Your task to perform on an android device: turn pop-ups off in chrome Image 0: 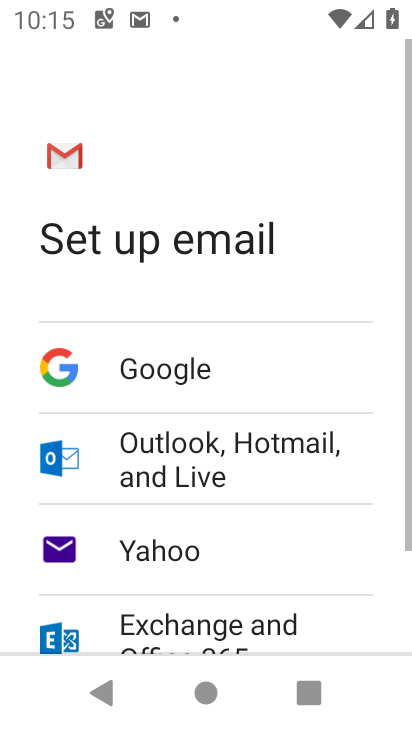
Step 0: press home button
Your task to perform on an android device: turn pop-ups off in chrome Image 1: 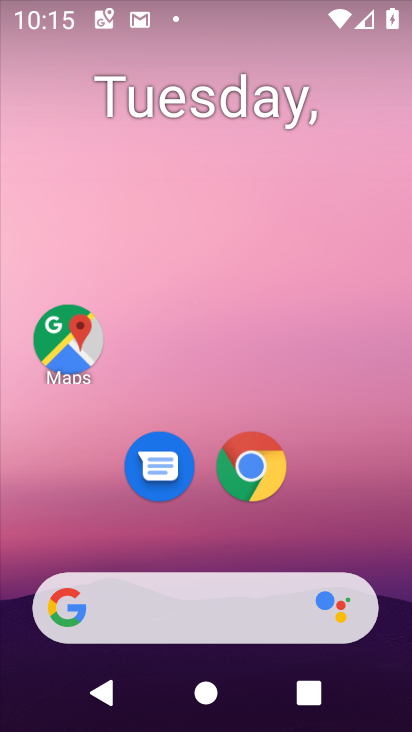
Step 1: drag from (261, 639) to (287, 109)
Your task to perform on an android device: turn pop-ups off in chrome Image 2: 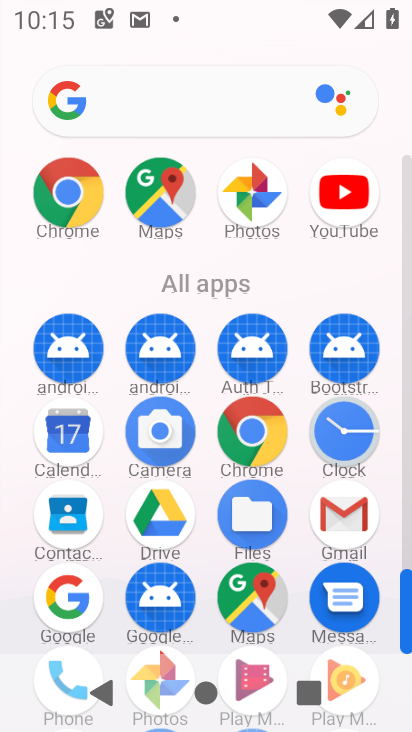
Step 2: click (98, 211)
Your task to perform on an android device: turn pop-ups off in chrome Image 3: 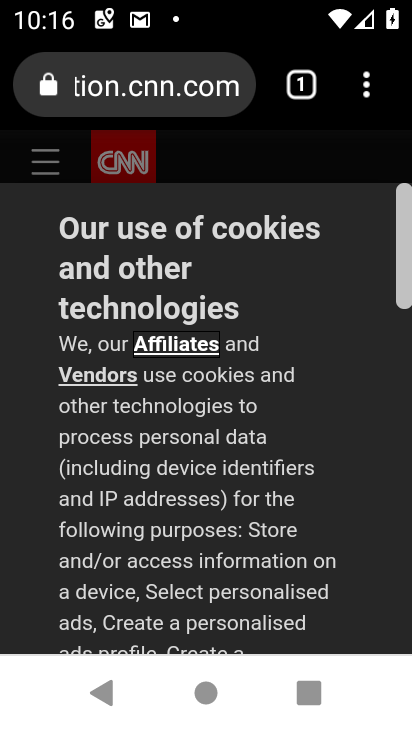
Step 3: click (356, 104)
Your task to perform on an android device: turn pop-ups off in chrome Image 4: 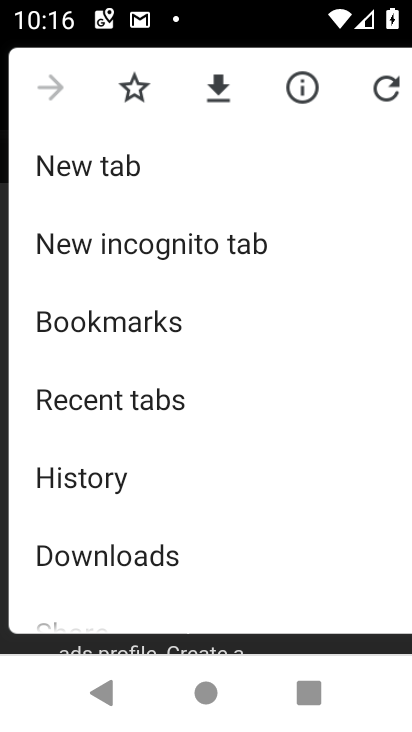
Step 4: drag from (146, 516) to (125, 239)
Your task to perform on an android device: turn pop-ups off in chrome Image 5: 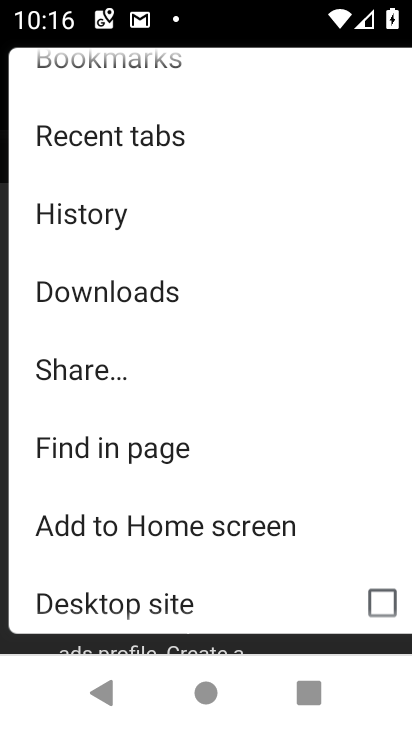
Step 5: drag from (139, 471) to (153, 205)
Your task to perform on an android device: turn pop-ups off in chrome Image 6: 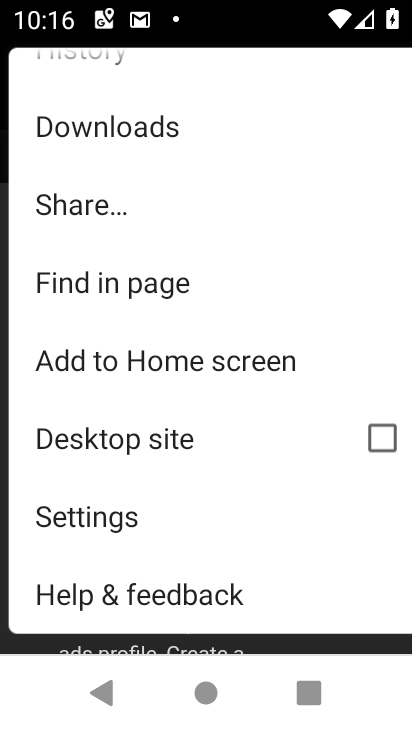
Step 6: click (110, 520)
Your task to perform on an android device: turn pop-ups off in chrome Image 7: 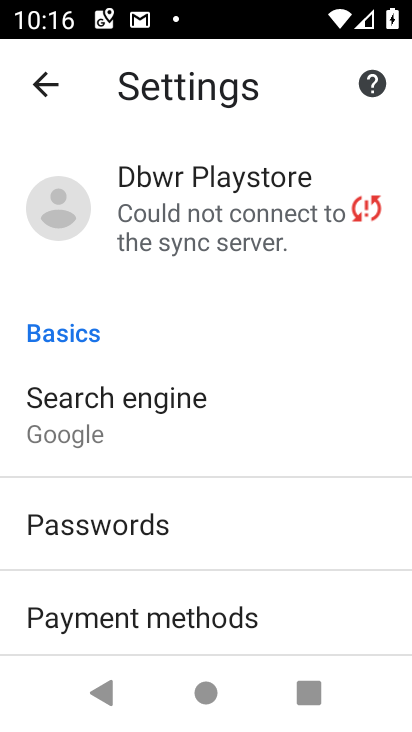
Step 7: drag from (136, 526) to (115, 301)
Your task to perform on an android device: turn pop-ups off in chrome Image 8: 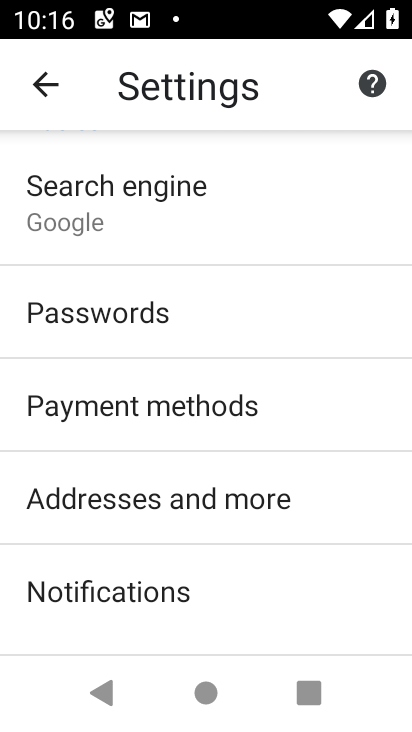
Step 8: drag from (193, 530) to (202, 143)
Your task to perform on an android device: turn pop-ups off in chrome Image 9: 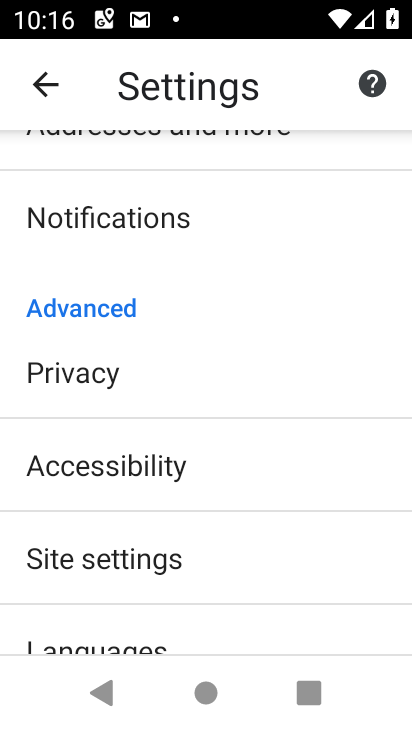
Step 9: drag from (172, 529) to (150, 349)
Your task to perform on an android device: turn pop-ups off in chrome Image 10: 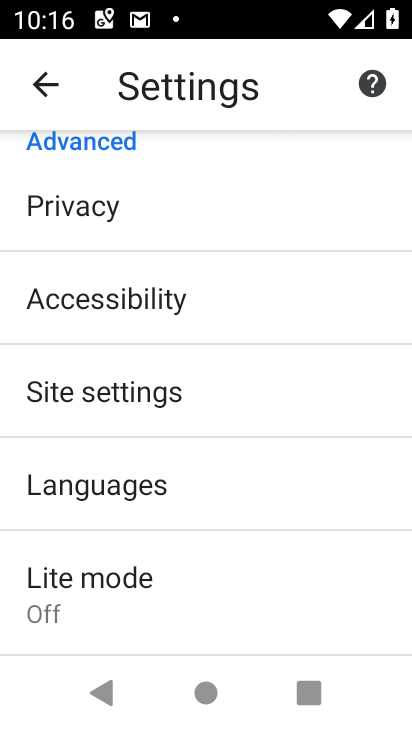
Step 10: click (116, 381)
Your task to perform on an android device: turn pop-ups off in chrome Image 11: 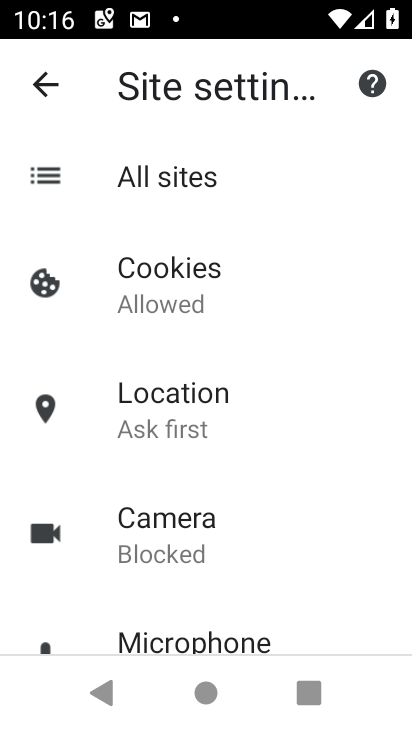
Step 11: drag from (219, 549) to (244, 350)
Your task to perform on an android device: turn pop-ups off in chrome Image 12: 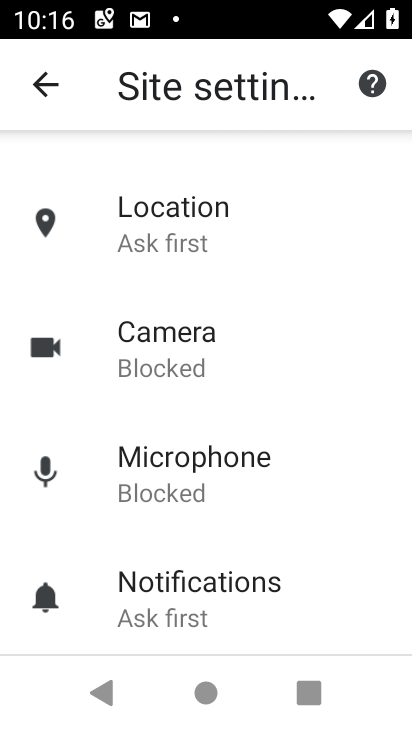
Step 12: drag from (241, 586) to (240, 296)
Your task to perform on an android device: turn pop-ups off in chrome Image 13: 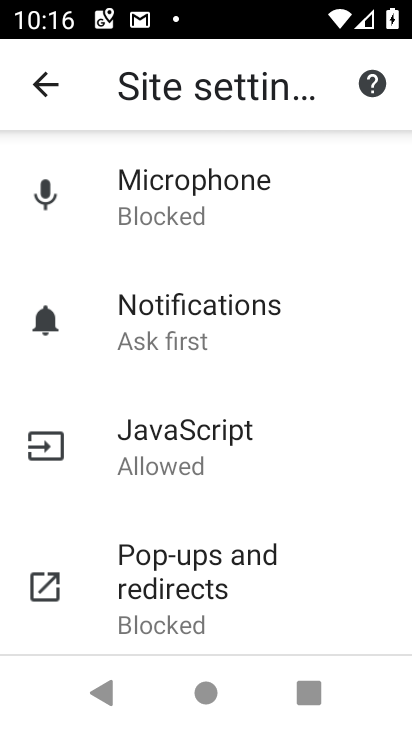
Step 13: click (229, 577)
Your task to perform on an android device: turn pop-ups off in chrome Image 14: 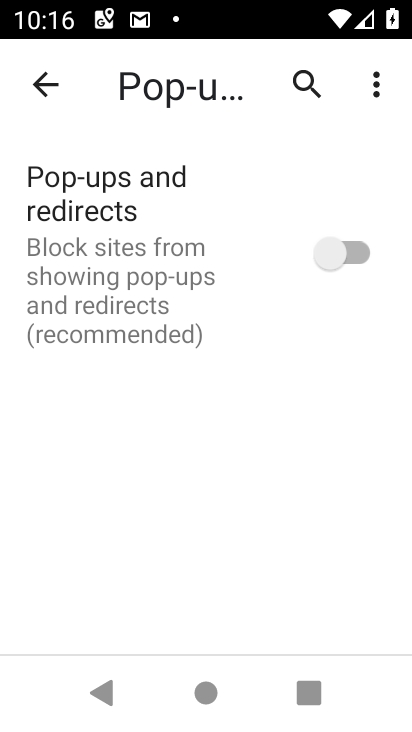
Step 14: click (344, 256)
Your task to perform on an android device: turn pop-ups off in chrome Image 15: 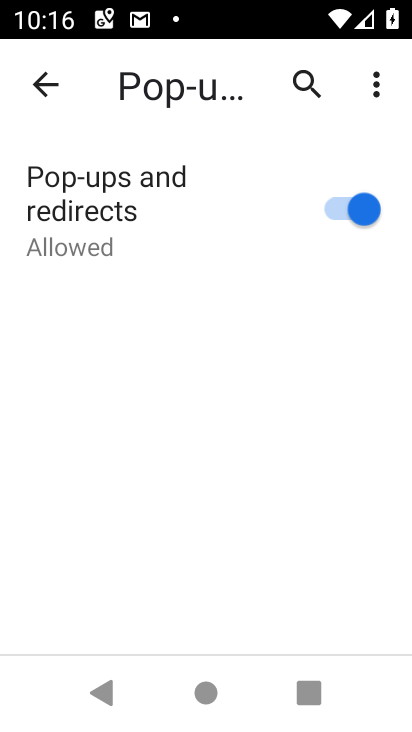
Step 15: click (344, 256)
Your task to perform on an android device: turn pop-ups off in chrome Image 16: 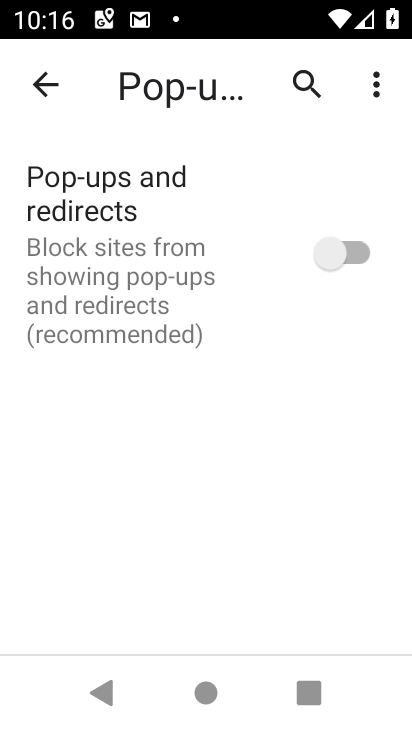
Step 16: task complete